Your task to perform on an android device: Open calendar and show me the fourth week of next month Image 0: 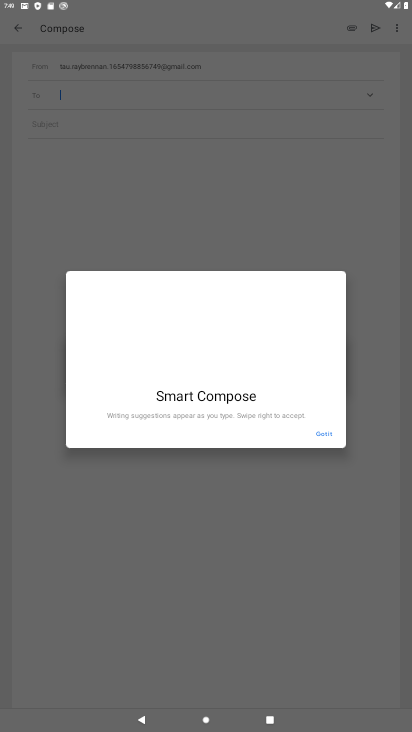
Step 0: press home button
Your task to perform on an android device: Open calendar and show me the fourth week of next month Image 1: 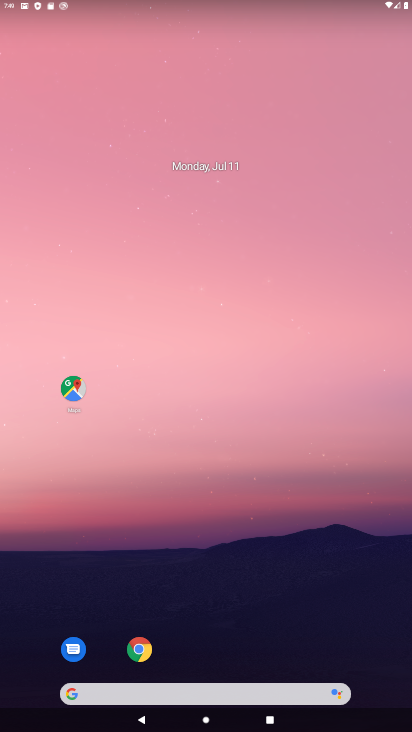
Step 1: drag from (317, 187) to (306, 152)
Your task to perform on an android device: Open calendar and show me the fourth week of next month Image 2: 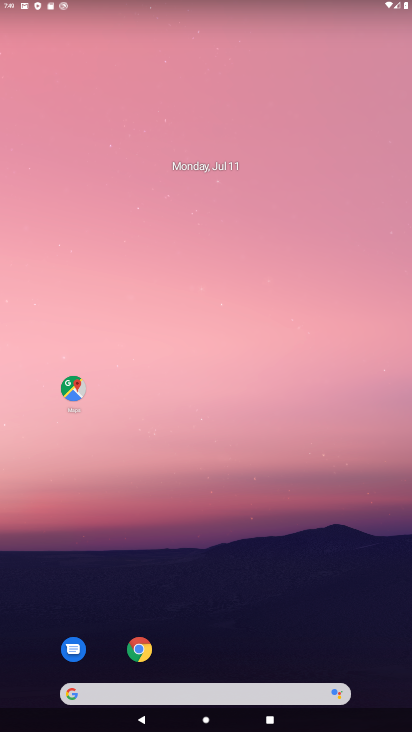
Step 2: drag from (269, 627) to (236, 4)
Your task to perform on an android device: Open calendar and show me the fourth week of next month Image 3: 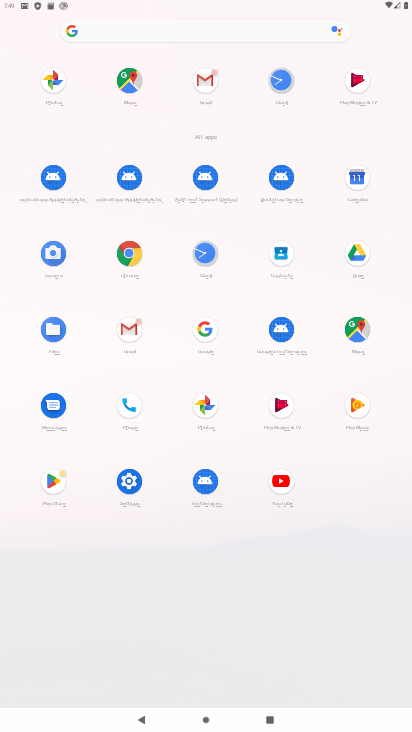
Step 3: click (363, 172)
Your task to perform on an android device: Open calendar and show me the fourth week of next month Image 4: 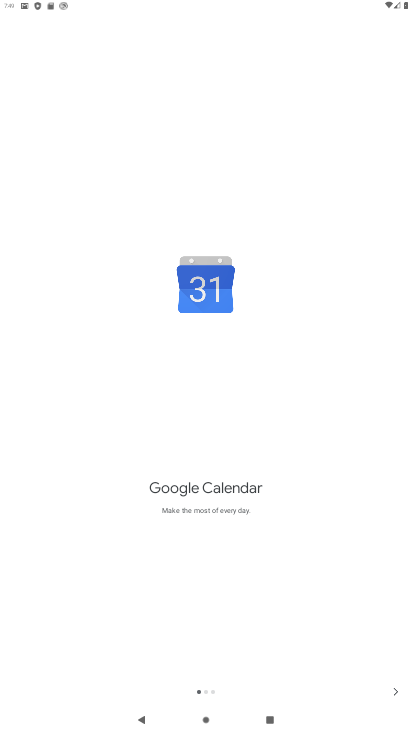
Step 4: click (392, 690)
Your task to perform on an android device: Open calendar and show me the fourth week of next month Image 5: 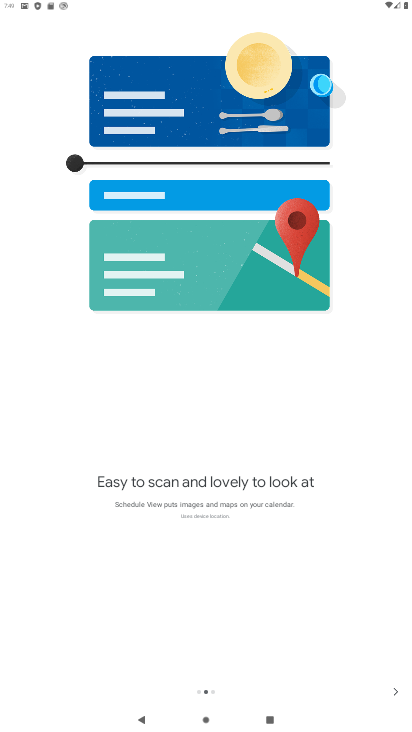
Step 5: click (392, 690)
Your task to perform on an android device: Open calendar and show me the fourth week of next month Image 6: 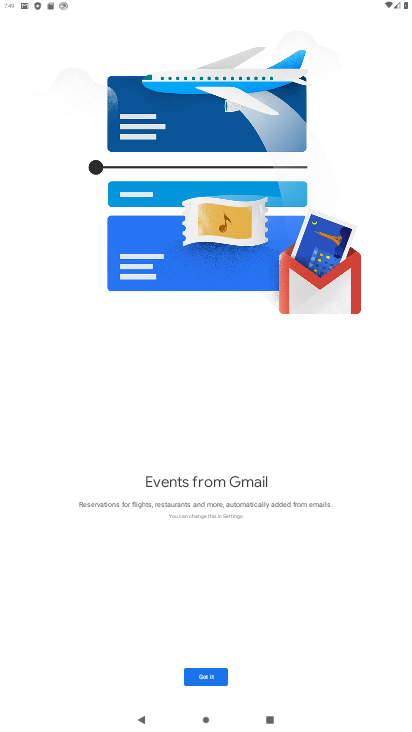
Step 6: click (202, 670)
Your task to perform on an android device: Open calendar and show me the fourth week of next month Image 7: 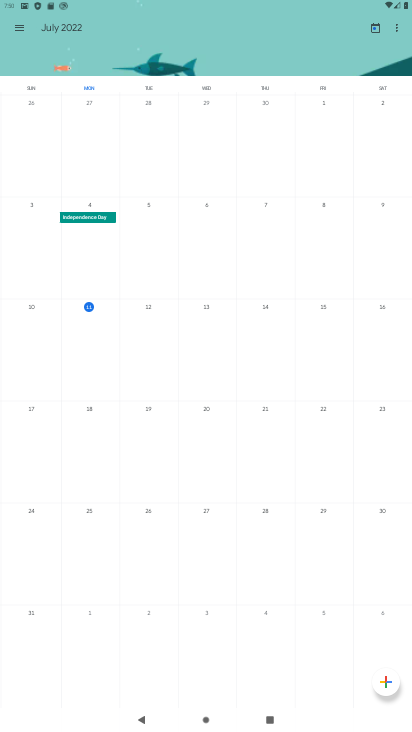
Step 7: drag from (382, 401) to (3, 169)
Your task to perform on an android device: Open calendar and show me the fourth week of next month Image 8: 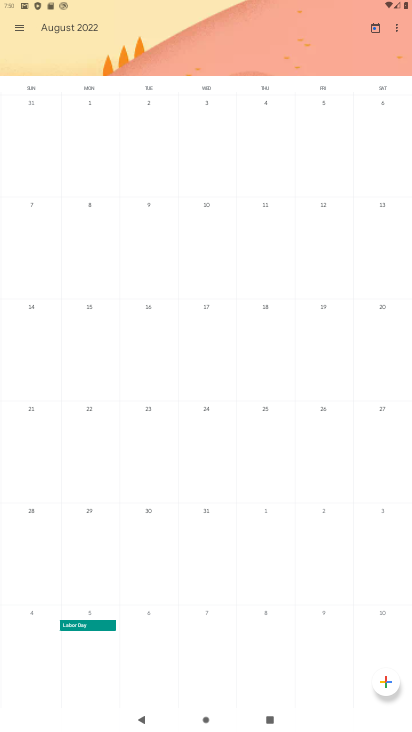
Step 8: click (19, 413)
Your task to perform on an android device: Open calendar and show me the fourth week of next month Image 9: 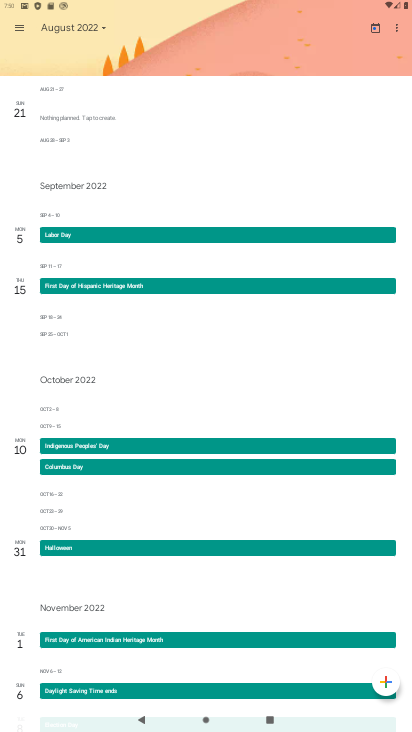
Step 9: task complete